Your task to perform on an android device: Go to battery settings Image 0: 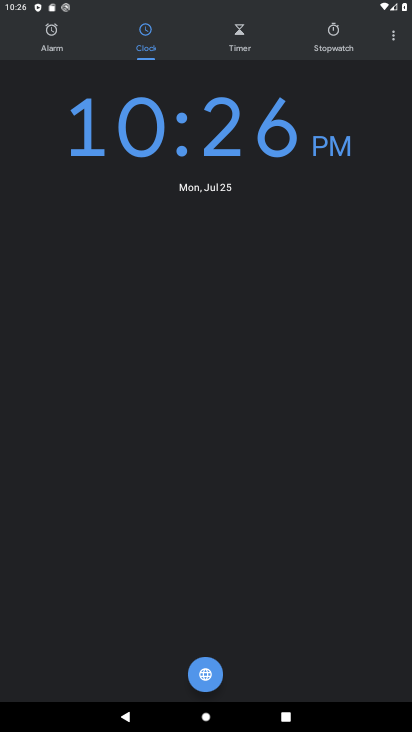
Step 0: press home button
Your task to perform on an android device: Go to battery settings Image 1: 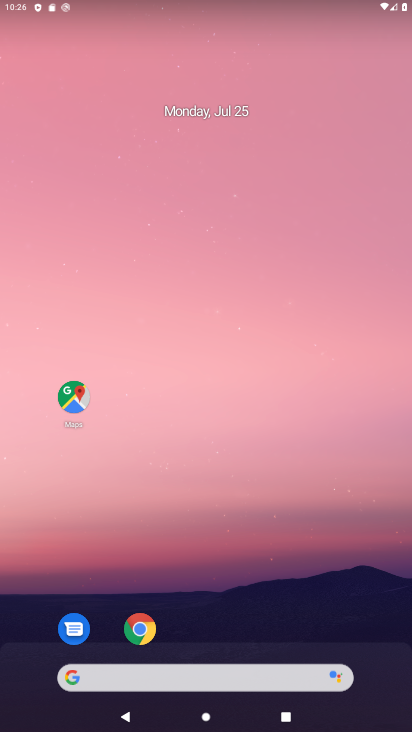
Step 1: drag from (250, 590) to (290, 23)
Your task to perform on an android device: Go to battery settings Image 2: 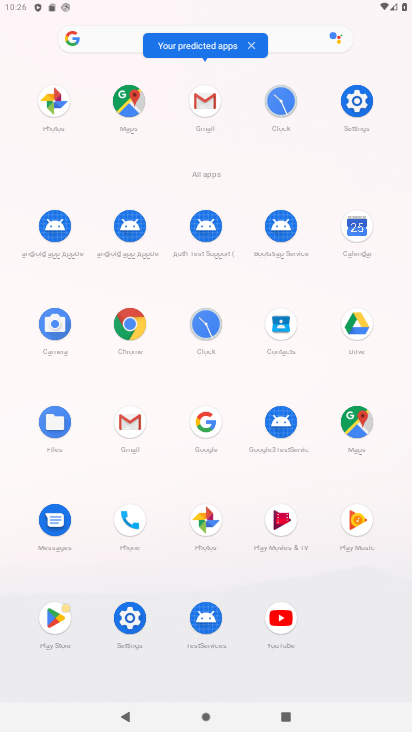
Step 2: click (358, 102)
Your task to perform on an android device: Go to battery settings Image 3: 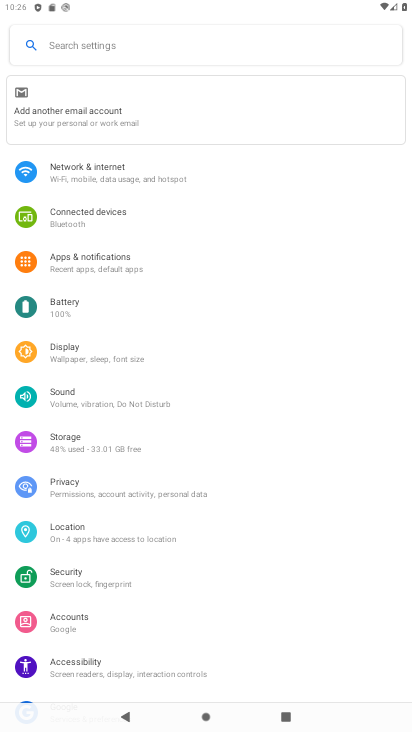
Step 3: click (95, 308)
Your task to perform on an android device: Go to battery settings Image 4: 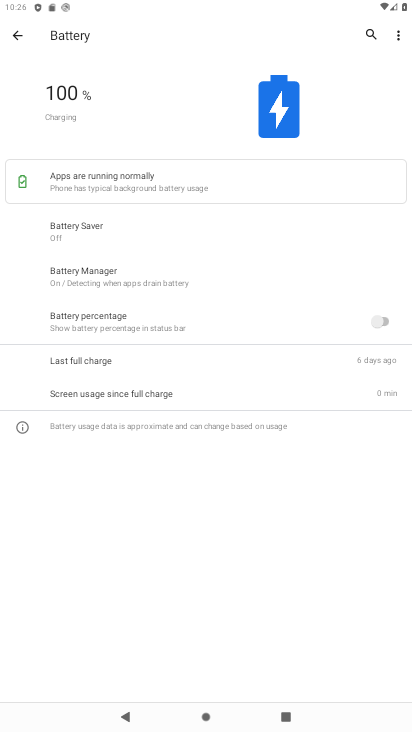
Step 4: task complete